Your task to perform on an android device: add a label to a message in the gmail app Image 0: 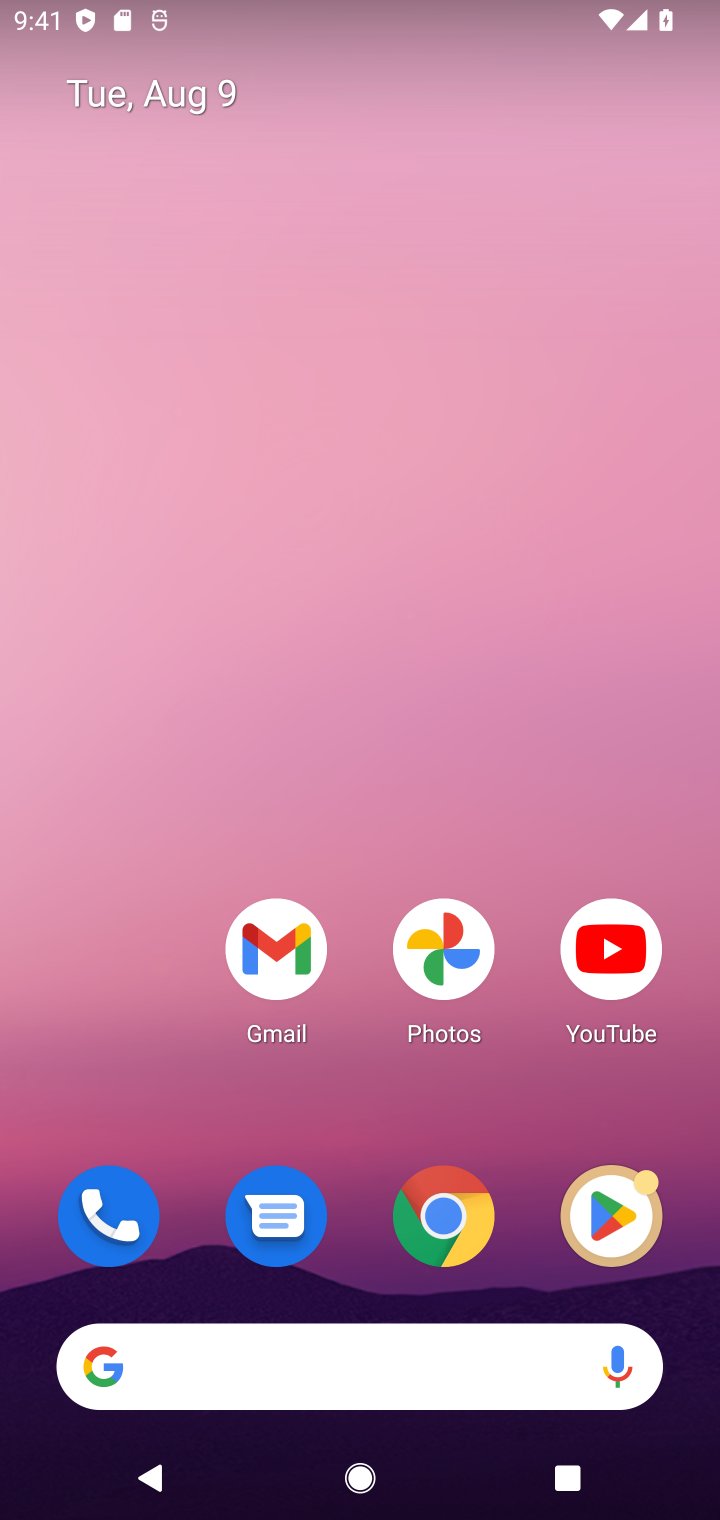
Step 0: drag from (410, 1178) to (623, 135)
Your task to perform on an android device: add a label to a message in the gmail app Image 1: 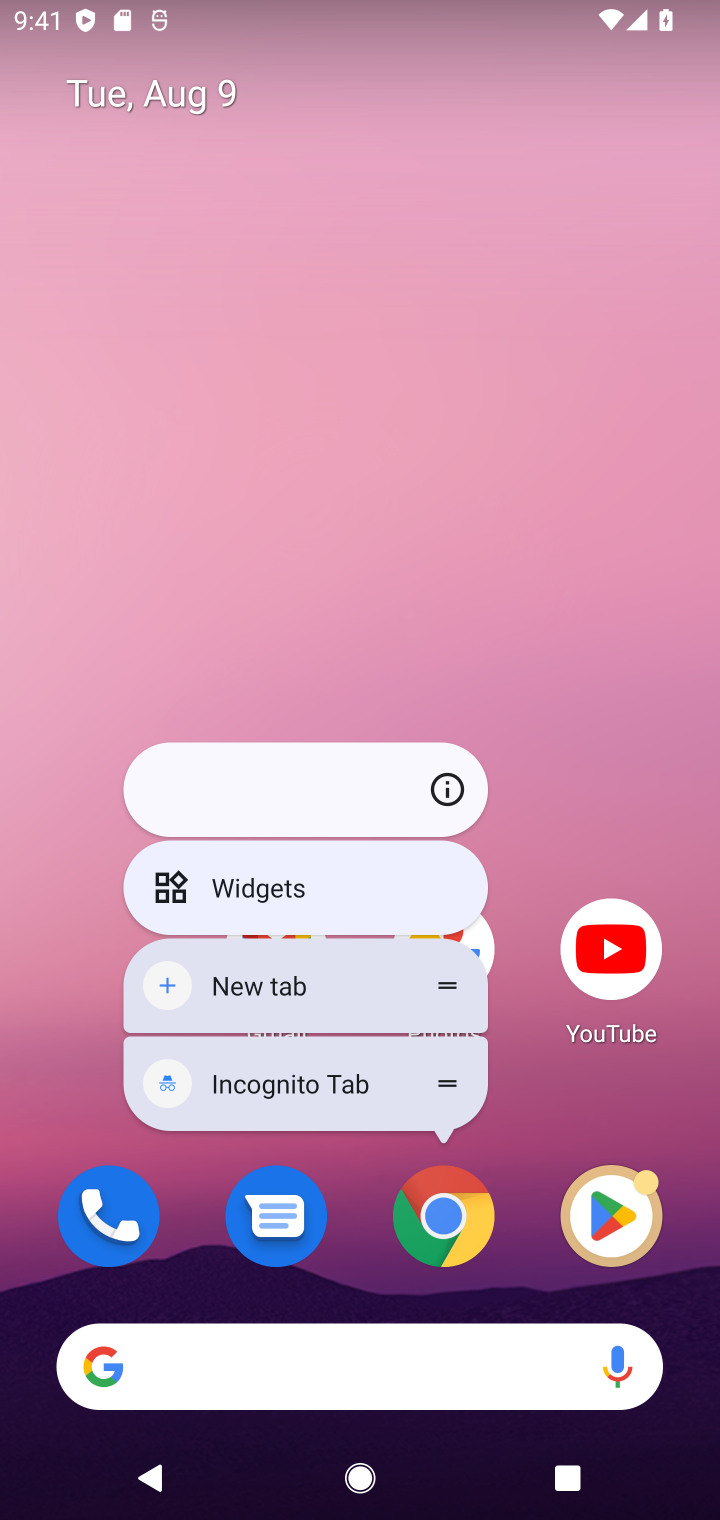
Step 1: click (530, 589)
Your task to perform on an android device: add a label to a message in the gmail app Image 2: 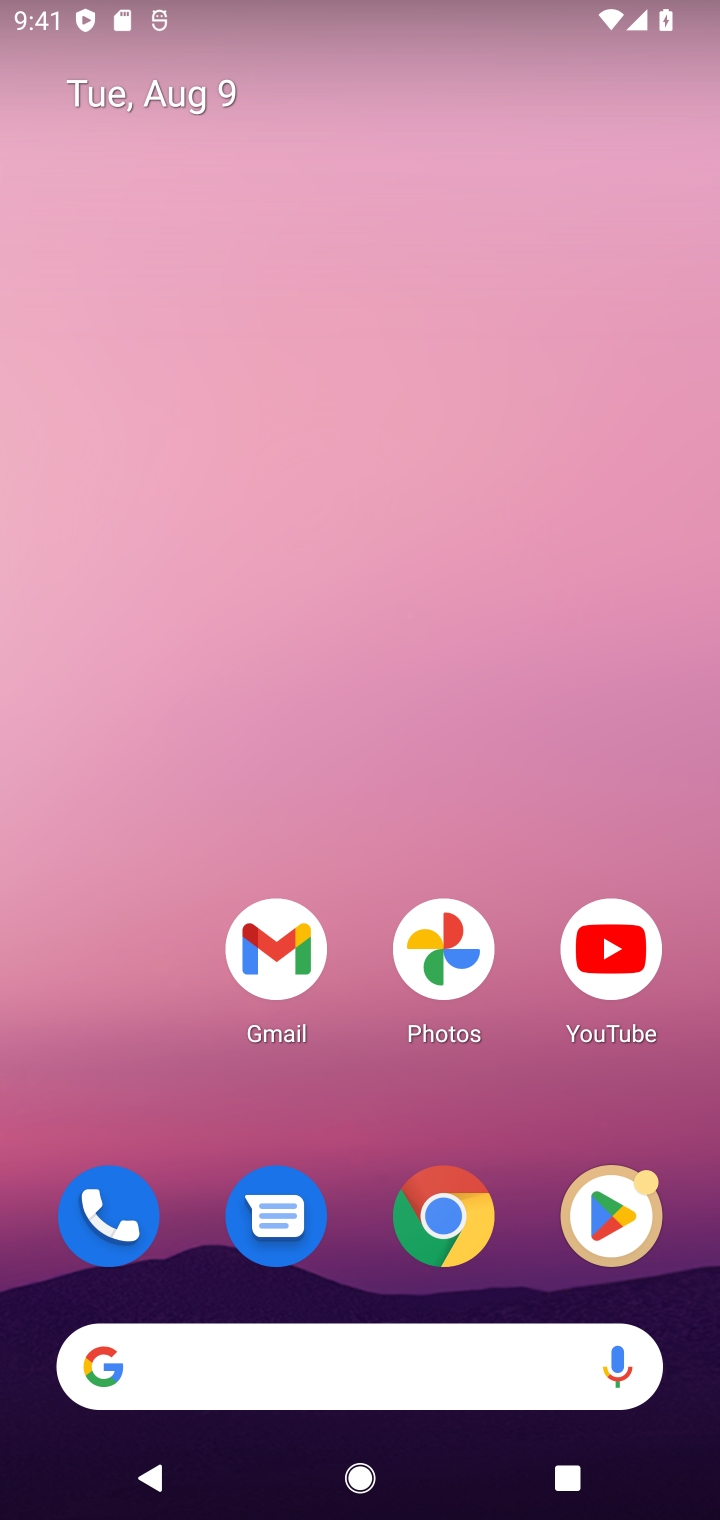
Step 2: click (266, 973)
Your task to perform on an android device: add a label to a message in the gmail app Image 3: 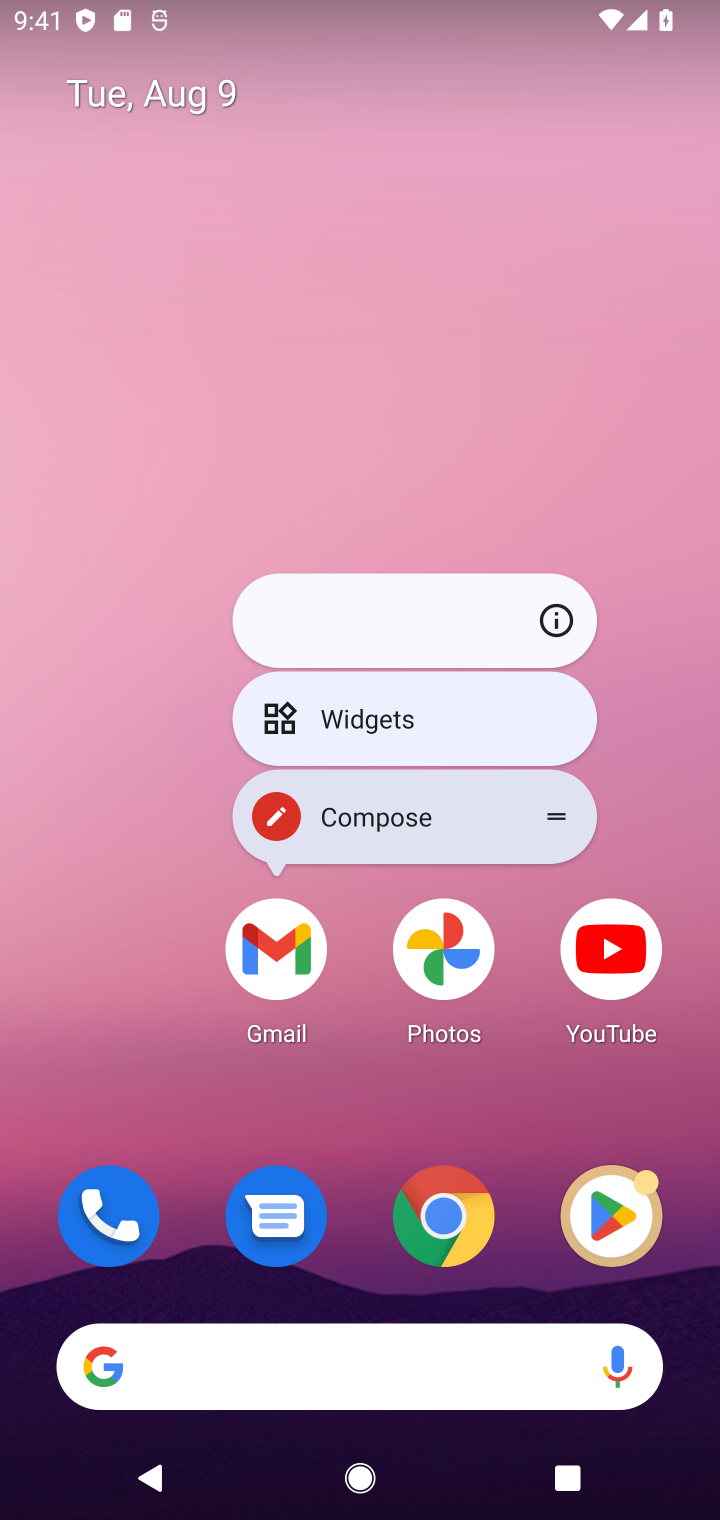
Step 3: click (285, 961)
Your task to perform on an android device: add a label to a message in the gmail app Image 4: 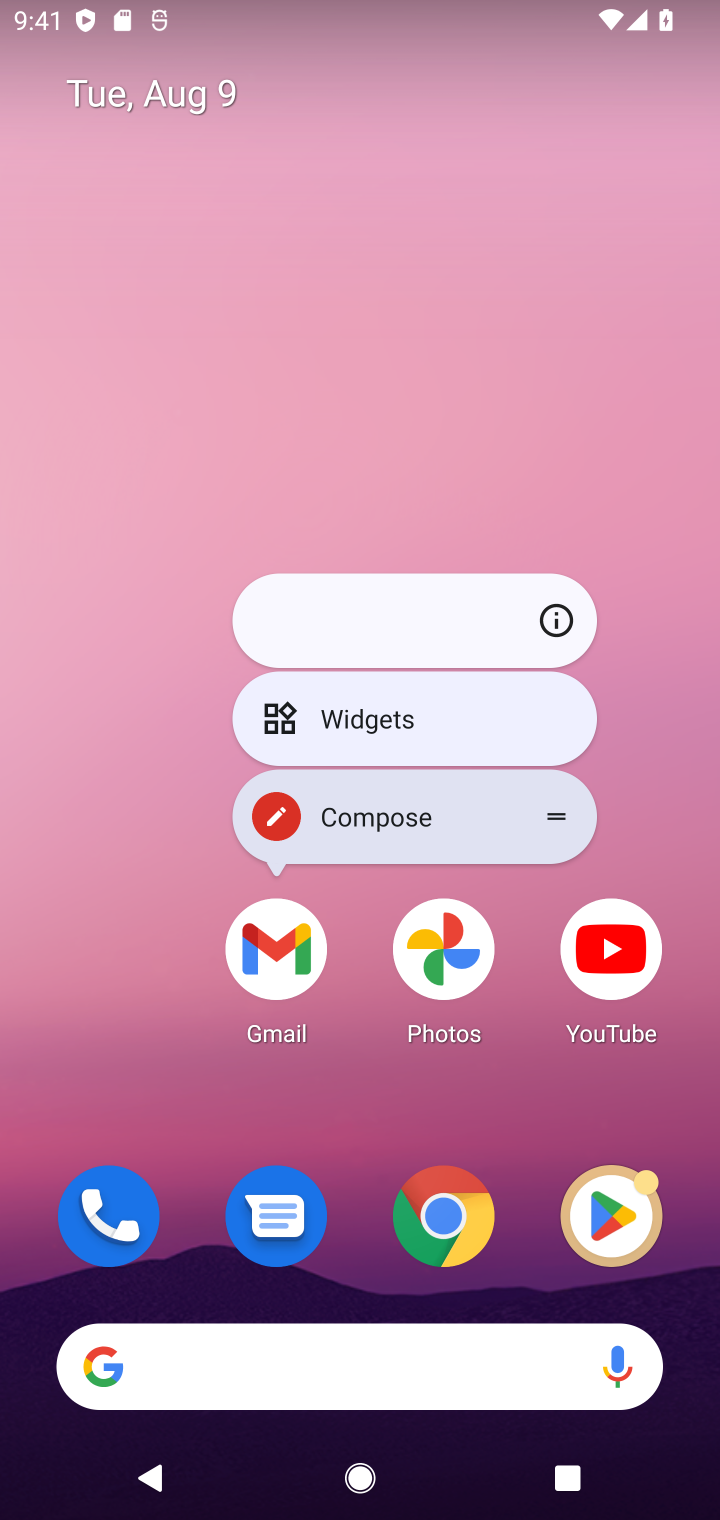
Step 4: click (277, 942)
Your task to perform on an android device: add a label to a message in the gmail app Image 5: 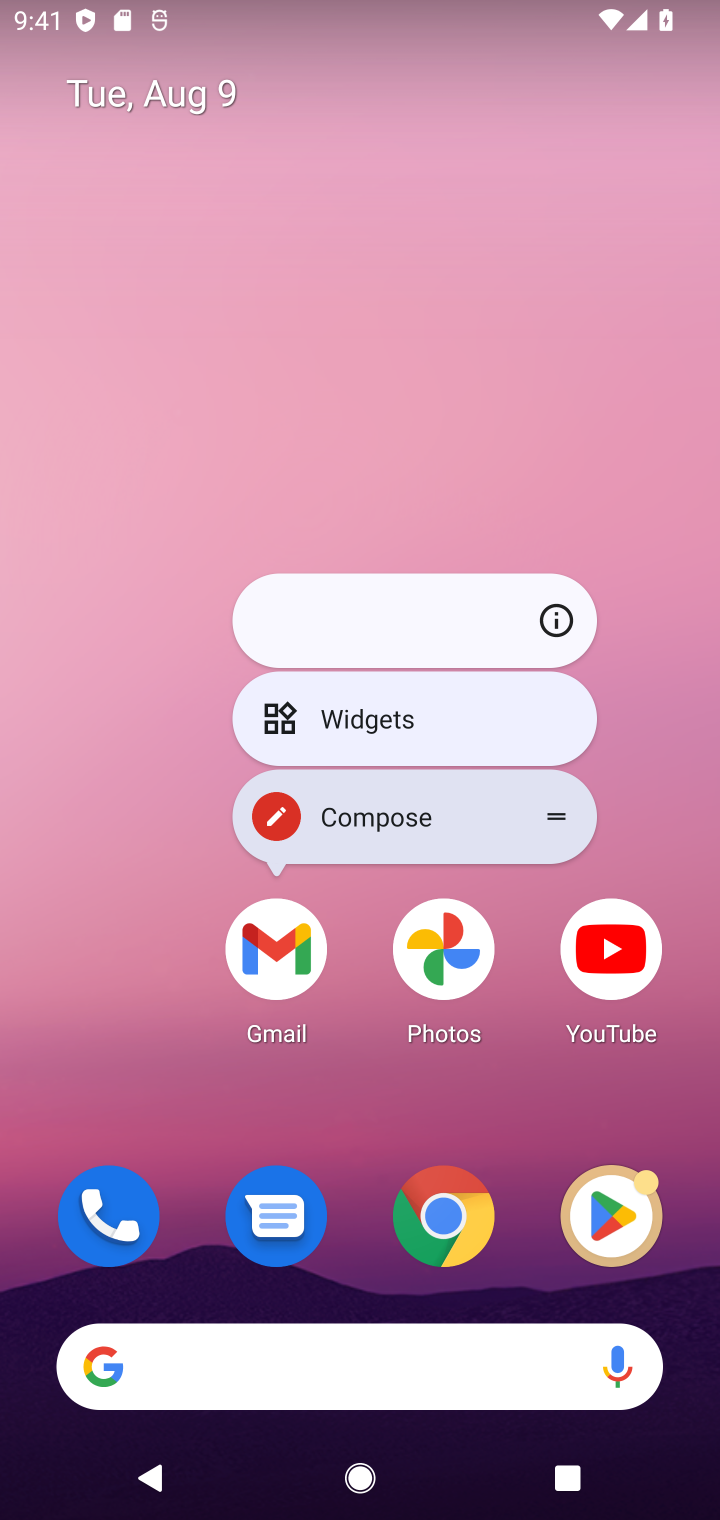
Step 5: click (286, 949)
Your task to perform on an android device: add a label to a message in the gmail app Image 6: 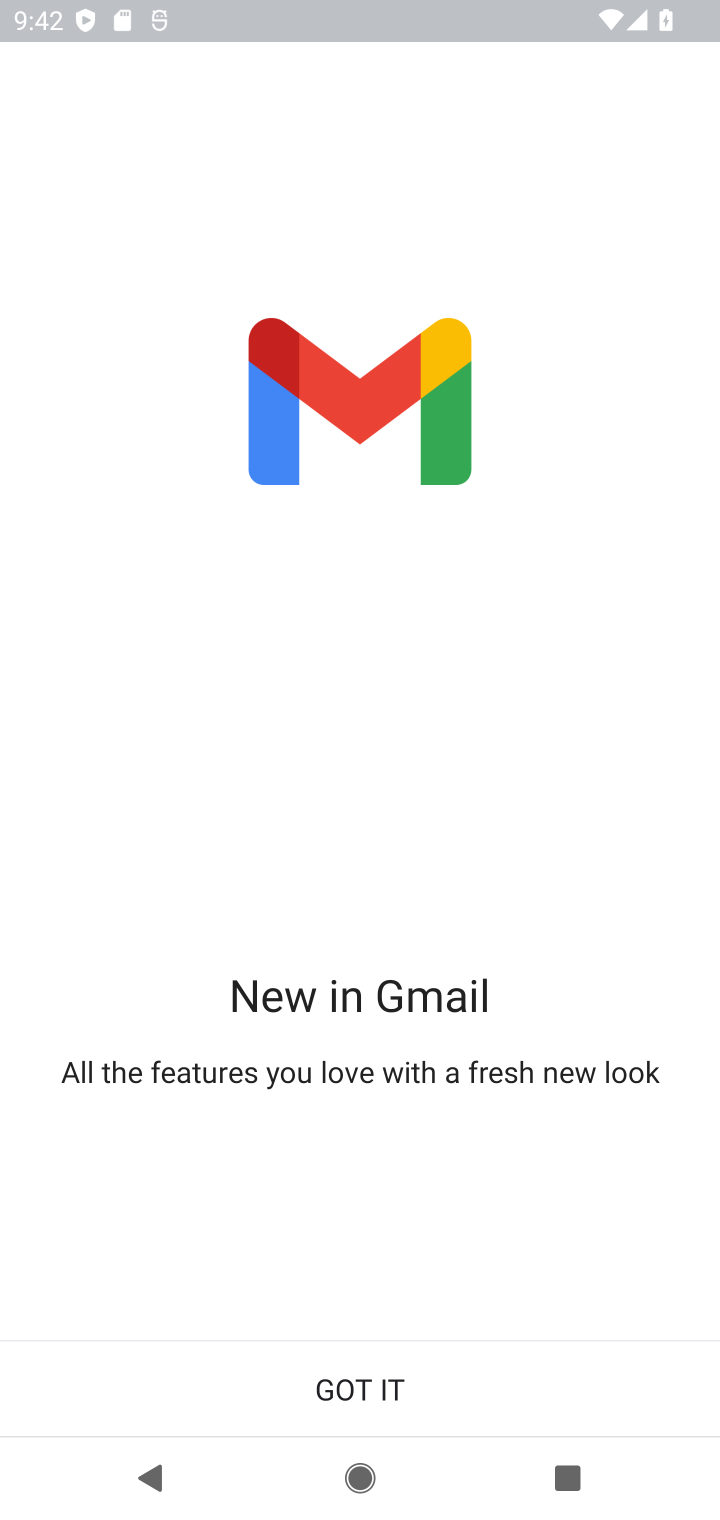
Step 6: click (376, 1412)
Your task to perform on an android device: add a label to a message in the gmail app Image 7: 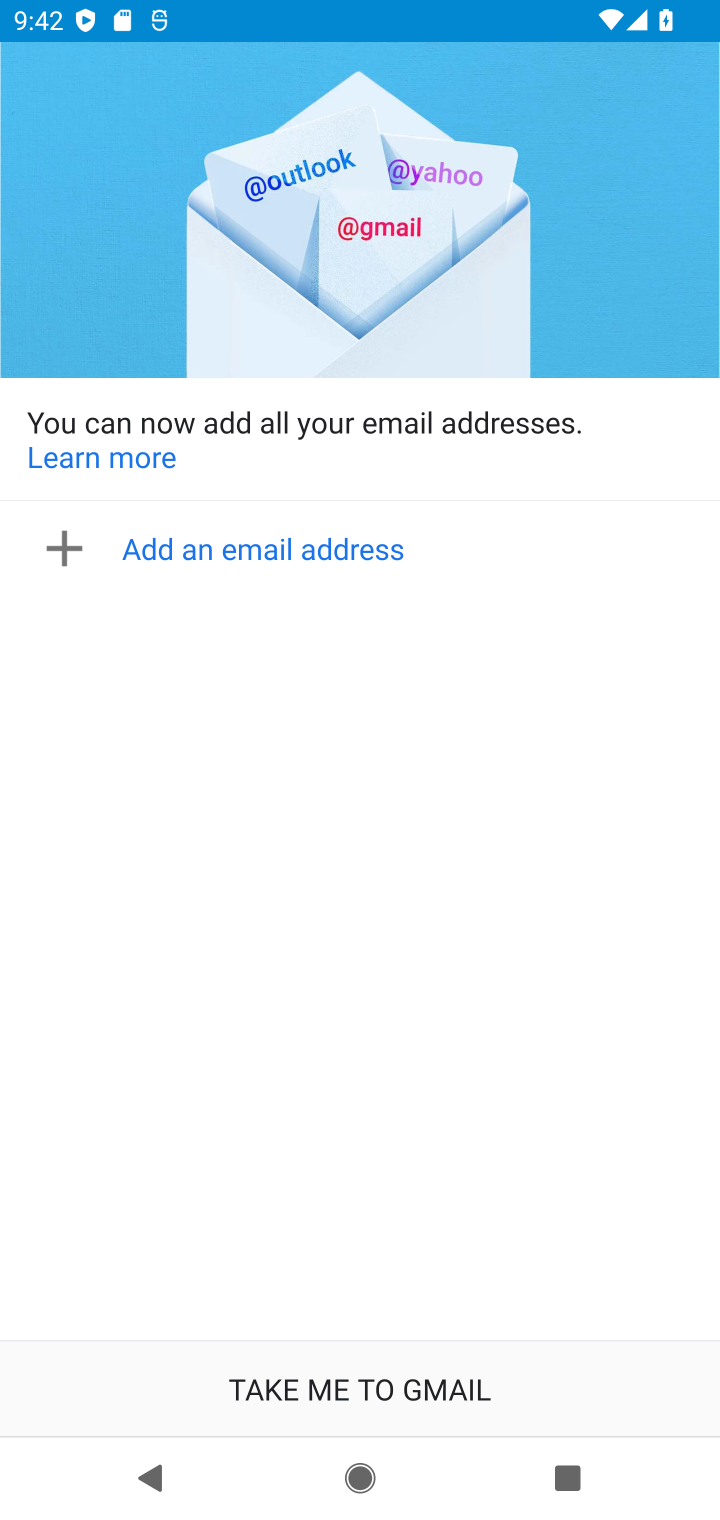
Step 7: click (368, 1377)
Your task to perform on an android device: add a label to a message in the gmail app Image 8: 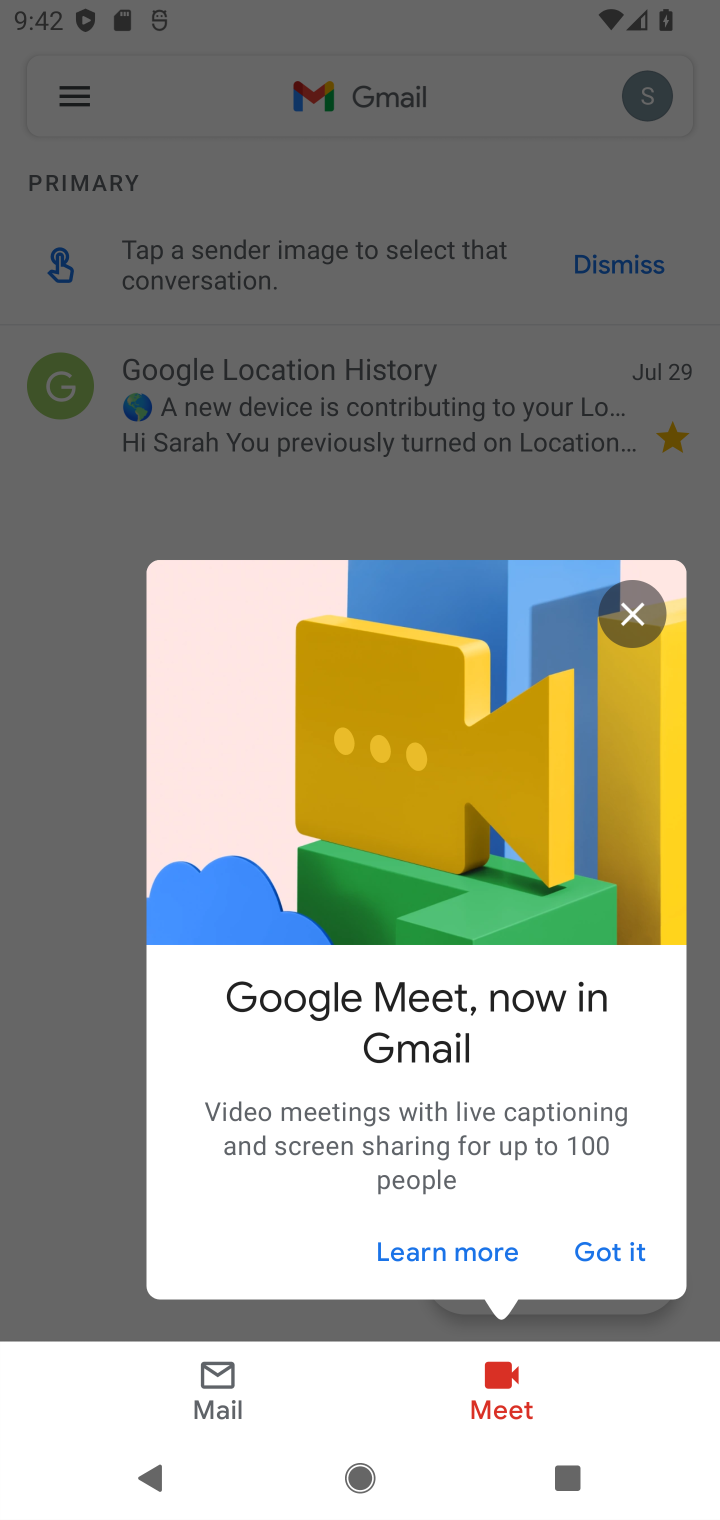
Step 8: click (644, 589)
Your task to perform on an android device: add a label to a message in the gmail app Image 9: 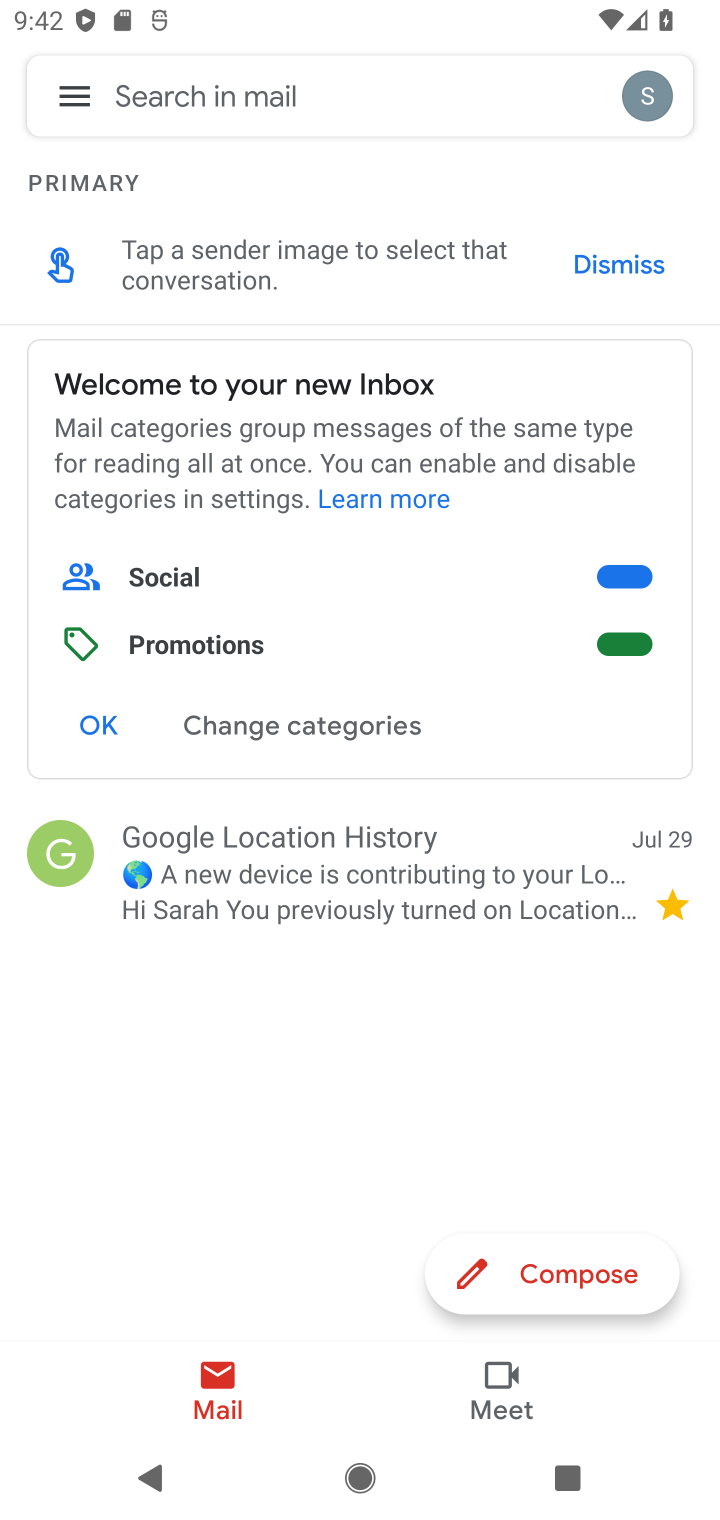
Step 9: click (306, 918)
Your task to perform on an android device: add a label to a message in the gmail app Image 10: 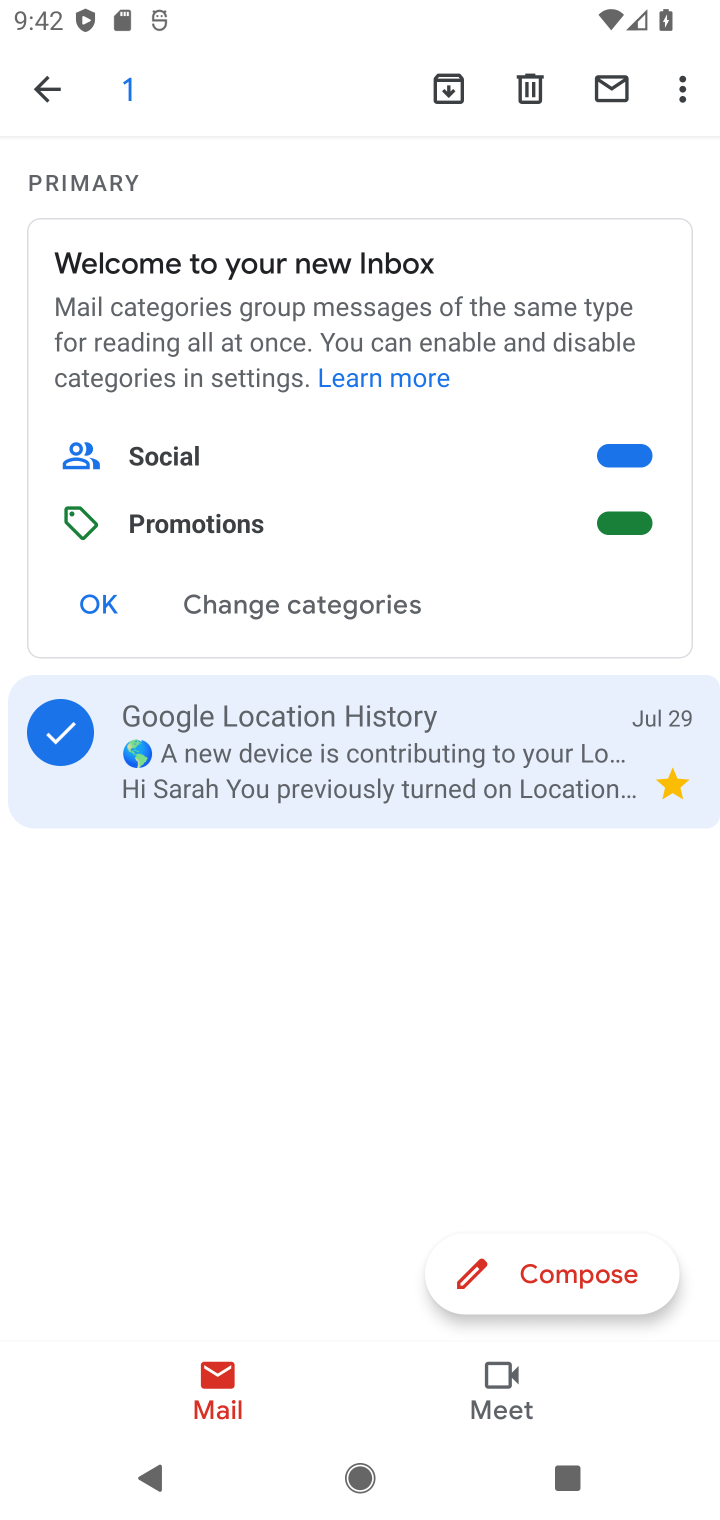
Step 10: click (697, 117)
Your task to perform on an android device: add a label to a message in the gmail app Image 11: 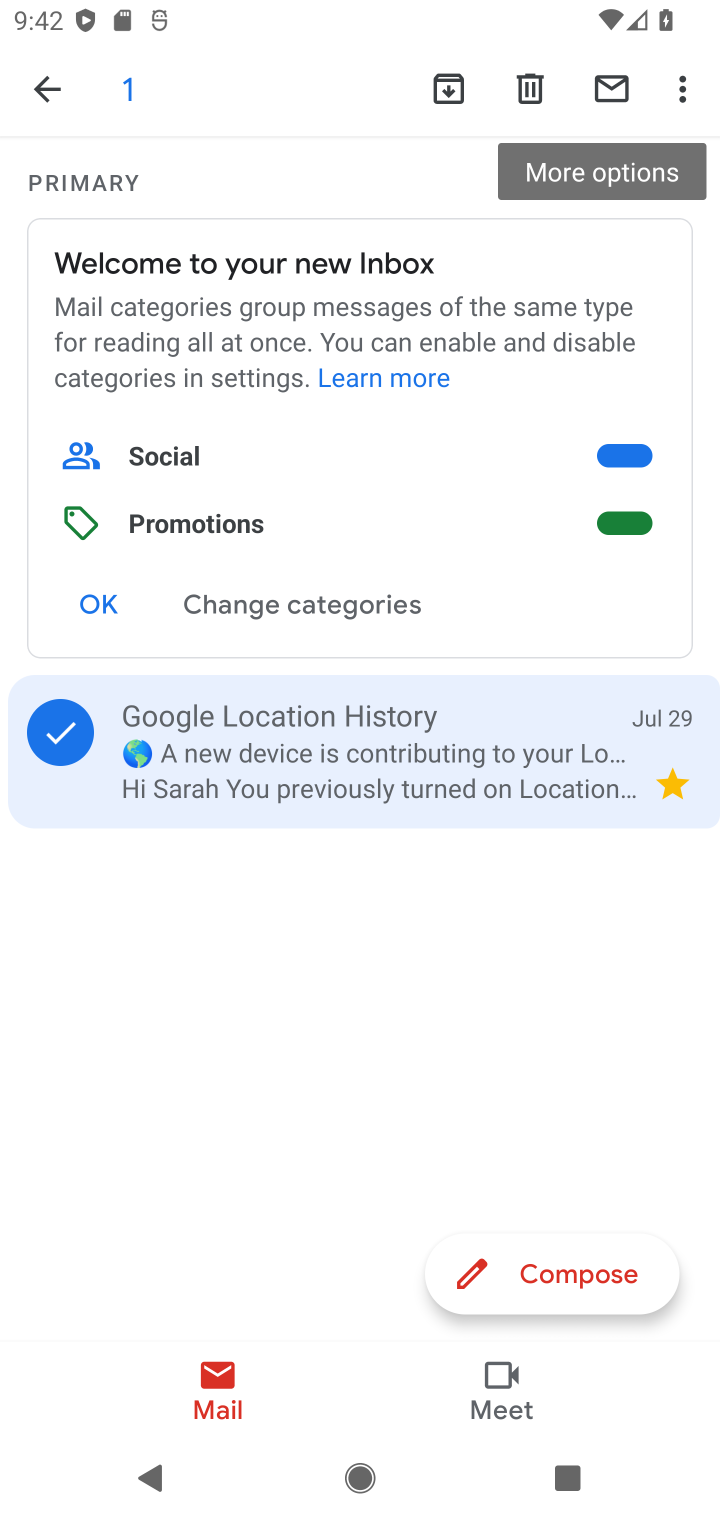
Step 11: click (664, 106)
Your task to perform on an android device: add a label to a message in the gmail app Image 12: 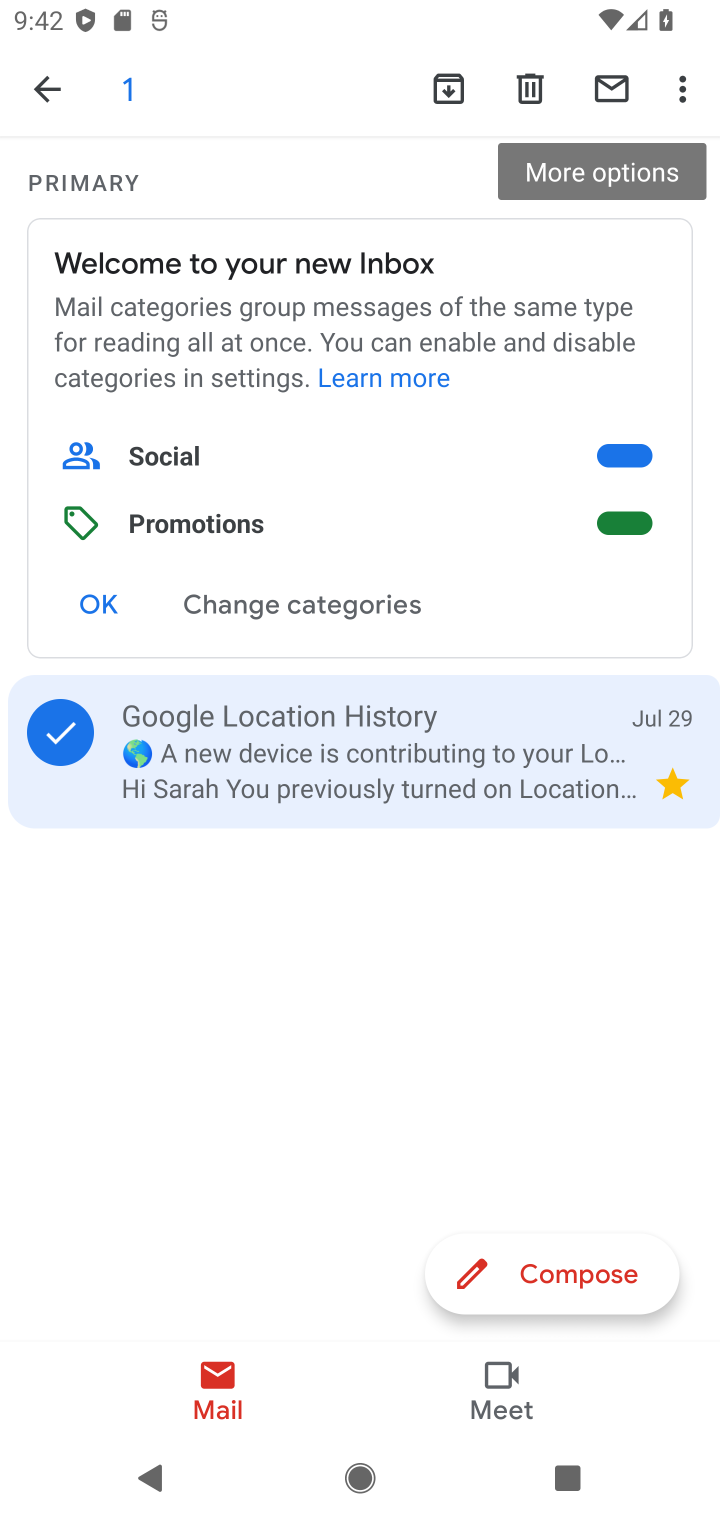
Step 12: click (675, 95)
Your task to perform on an android device: add a label to a message in the gmail app Image 13: 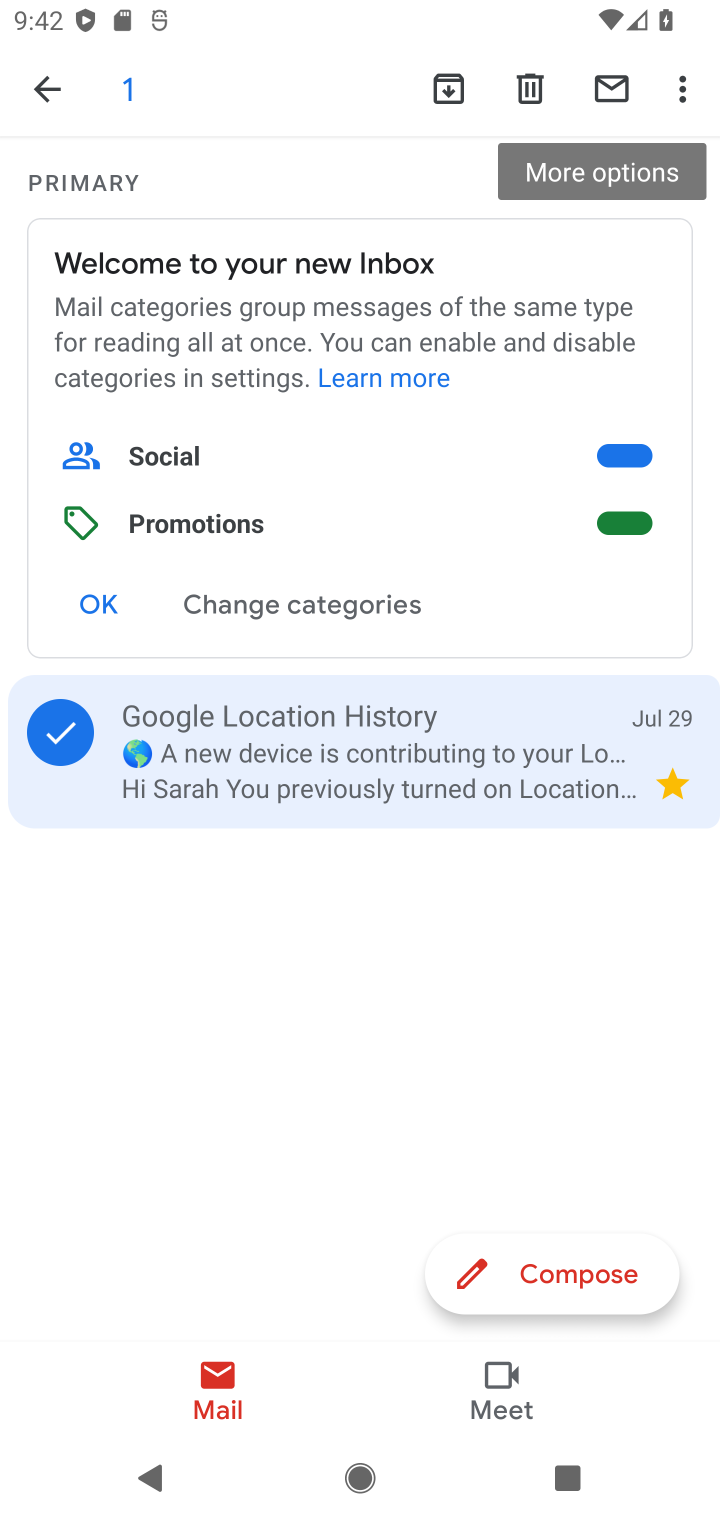
Step 13: click (683, 97)
Your task to perform on an android device: add a label to a message in the gmail app Image 14: 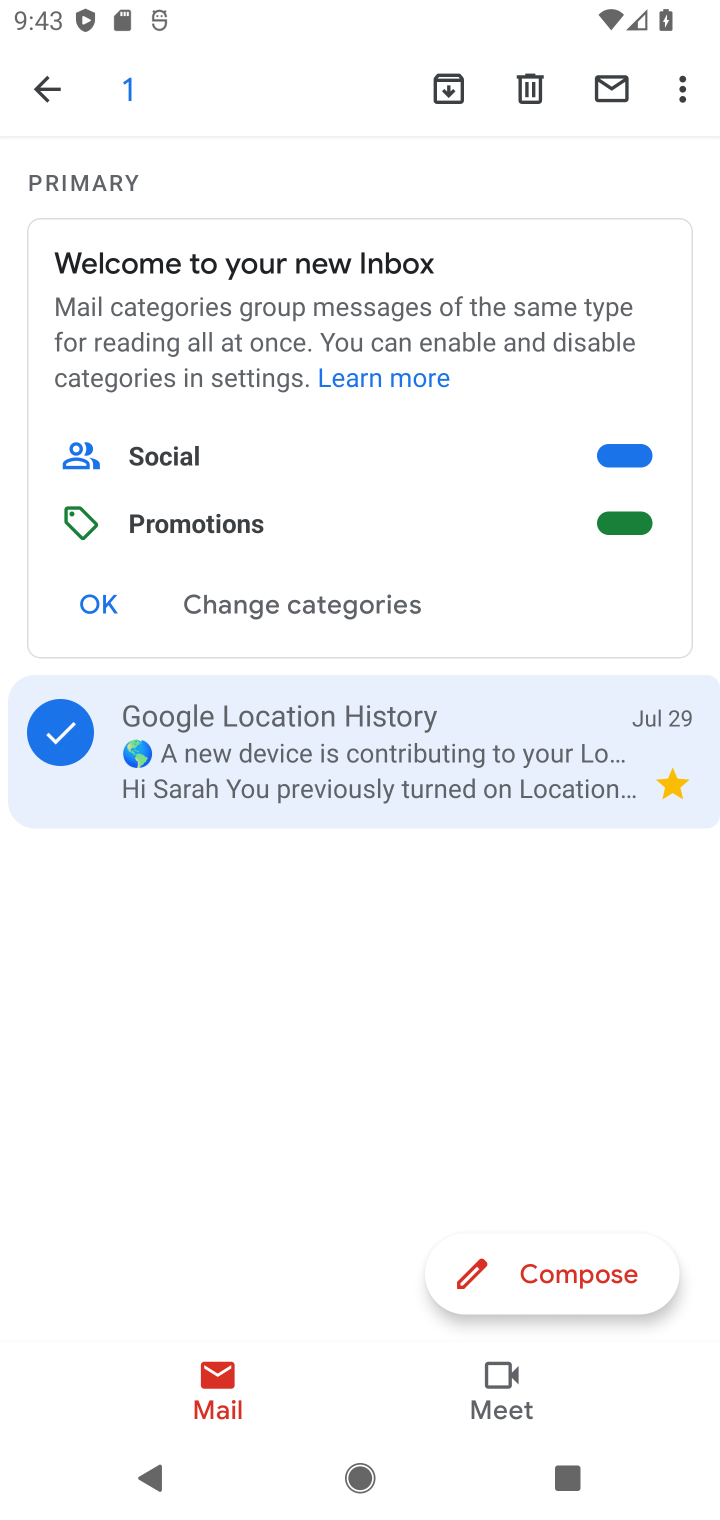
Step 14: click (679, 68)
Your task to perform on an android device: add a label to a message in the gmail app Image 15: 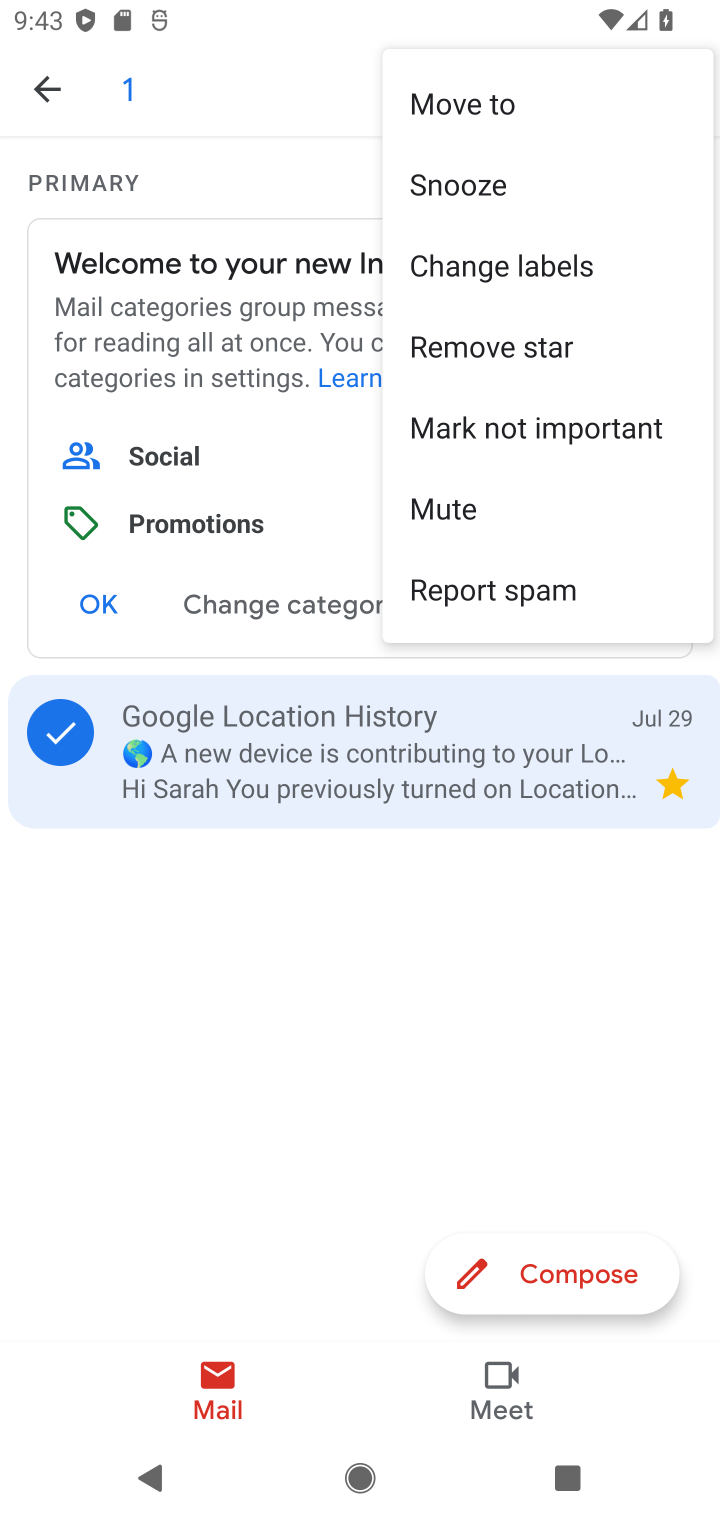
Step 15: click (535, 258)
Your task to perform on an android device: add a label to a message in the gmail app Image 16: 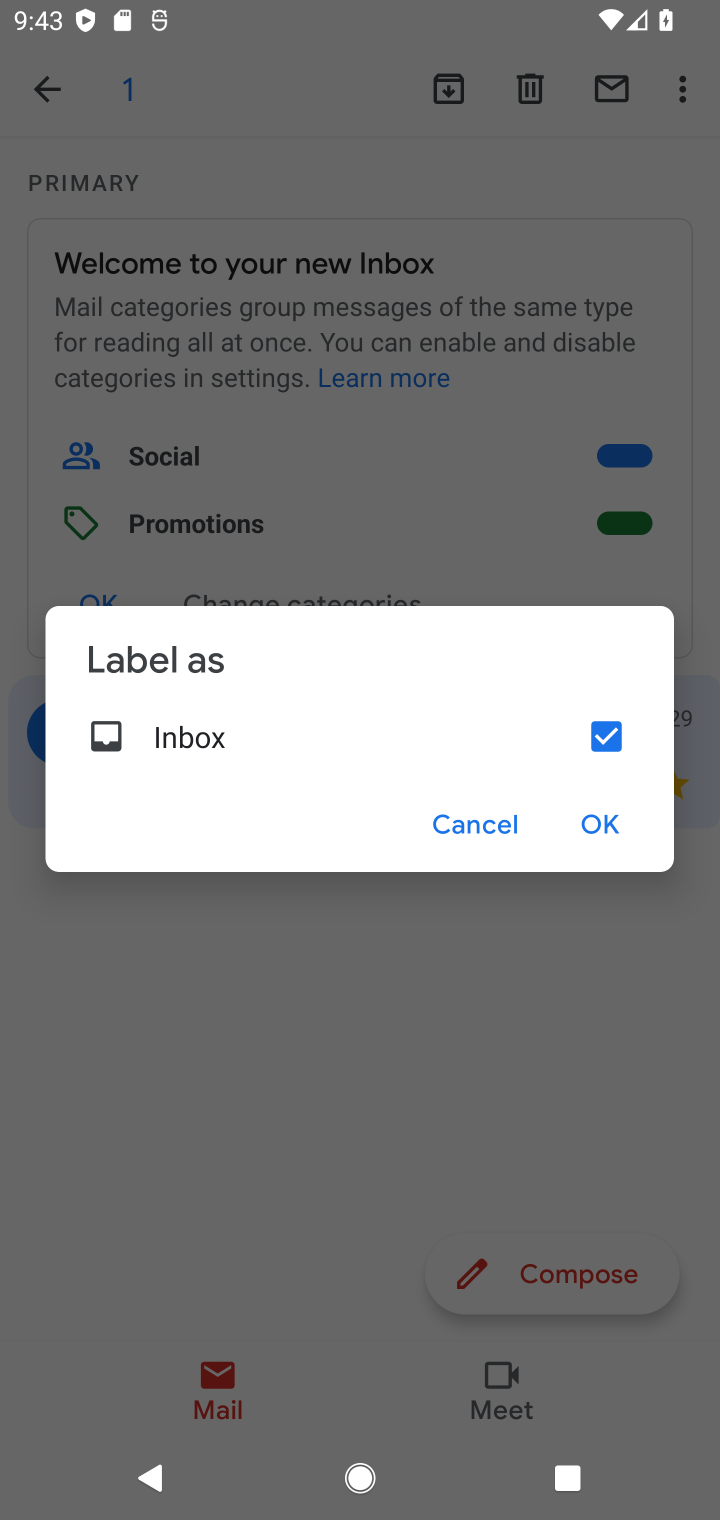
Step 16: click (581, 812)
Your task to perform on an android device: add a label to a message in the gmail app Image 17: 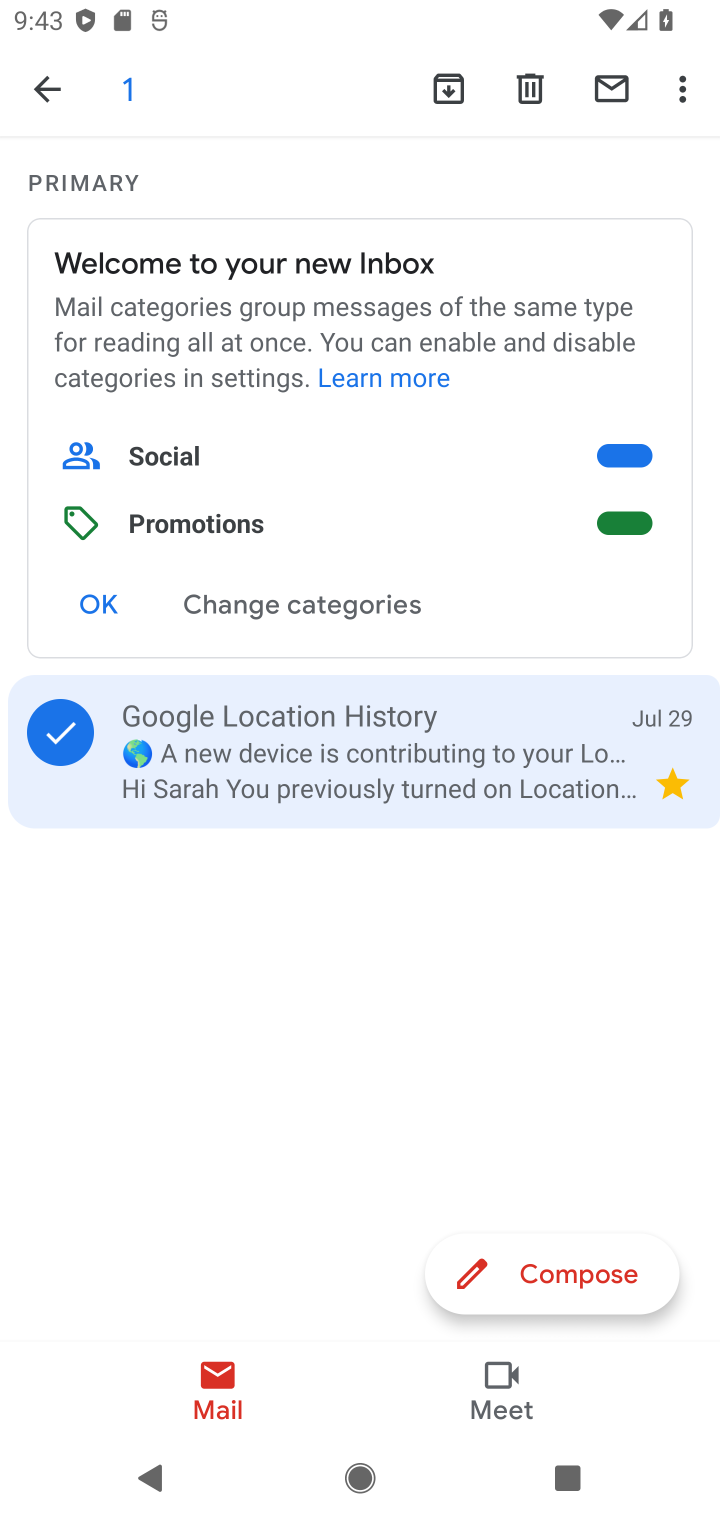
Step 17: task complete